Your task to perform on an android device: toggle pop-ups in chrome Image 0: 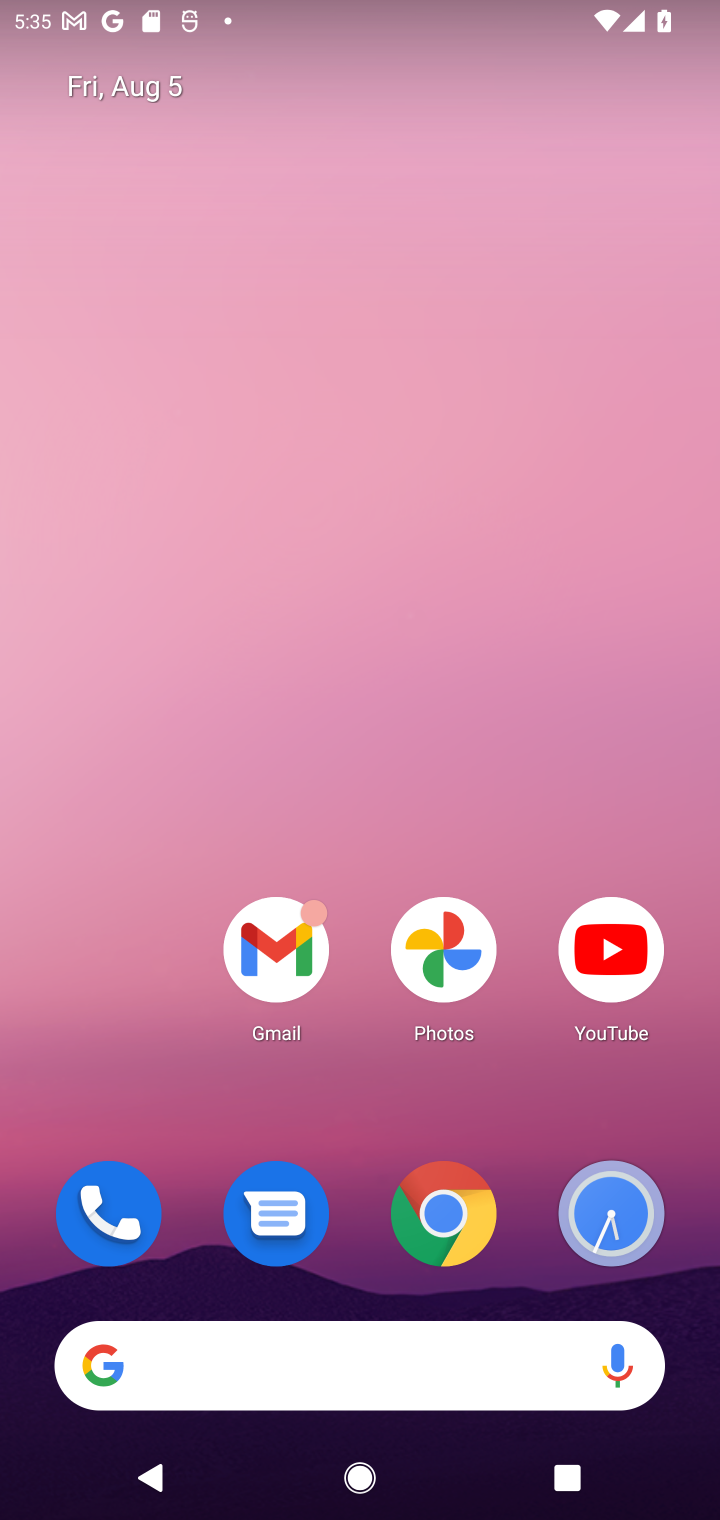
Step 0: click (482, 1222)
Your task to perform on an android device: toggle pop-ups in chrome Image 1: 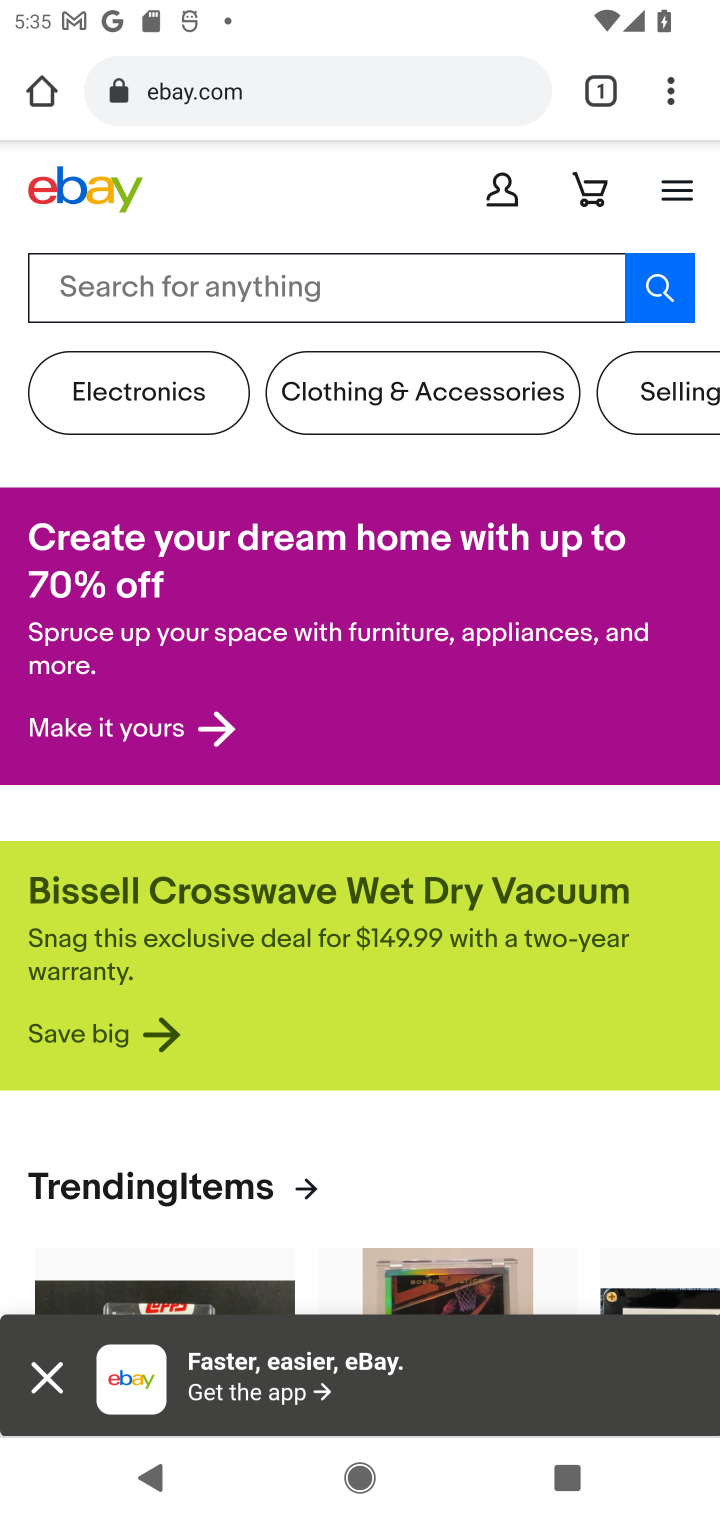
Step 1: click (667, 98)
Your task to perform on an android device: toggle pop-ups in chrome Image 2: 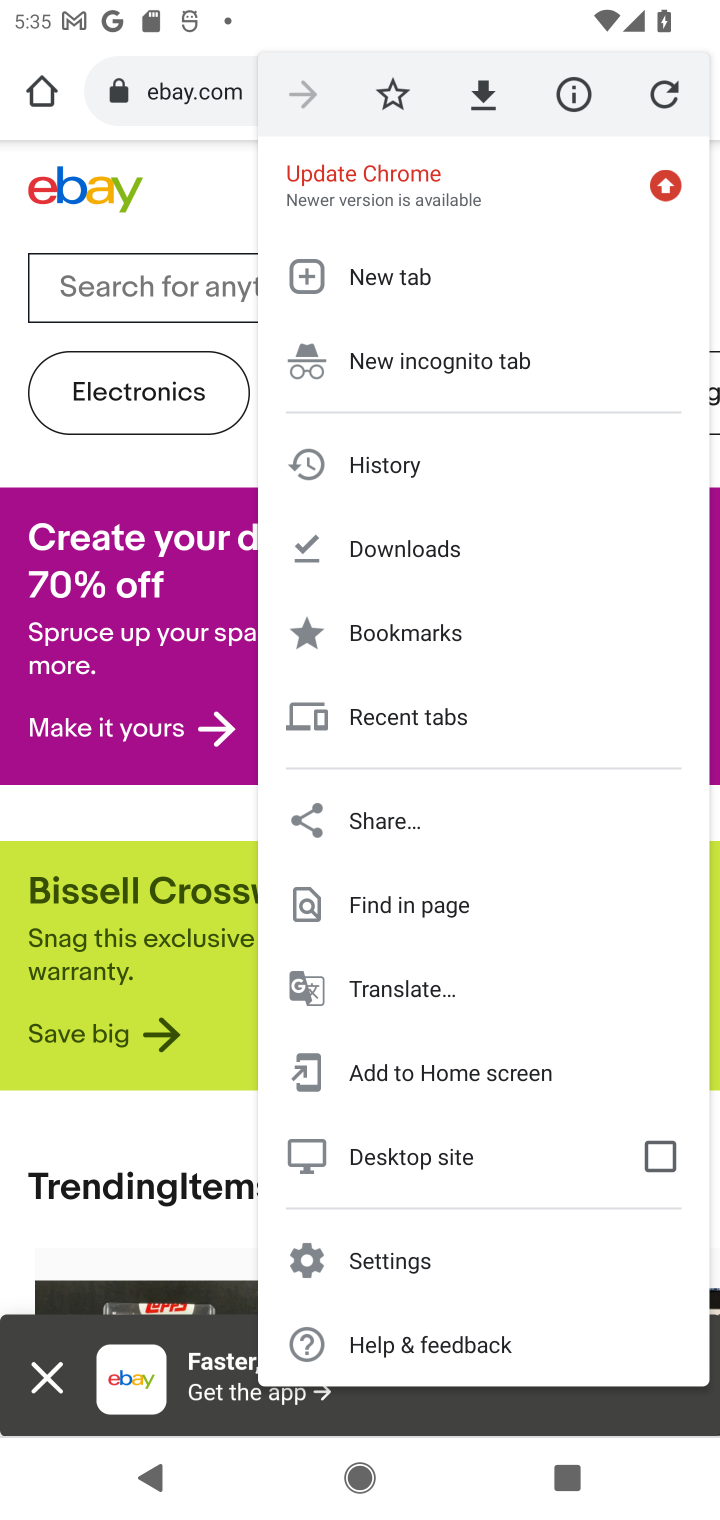
Step 2: click (361, 1243)
Your task to perform on an android device: toggle pop-ups in chrome Image 3: 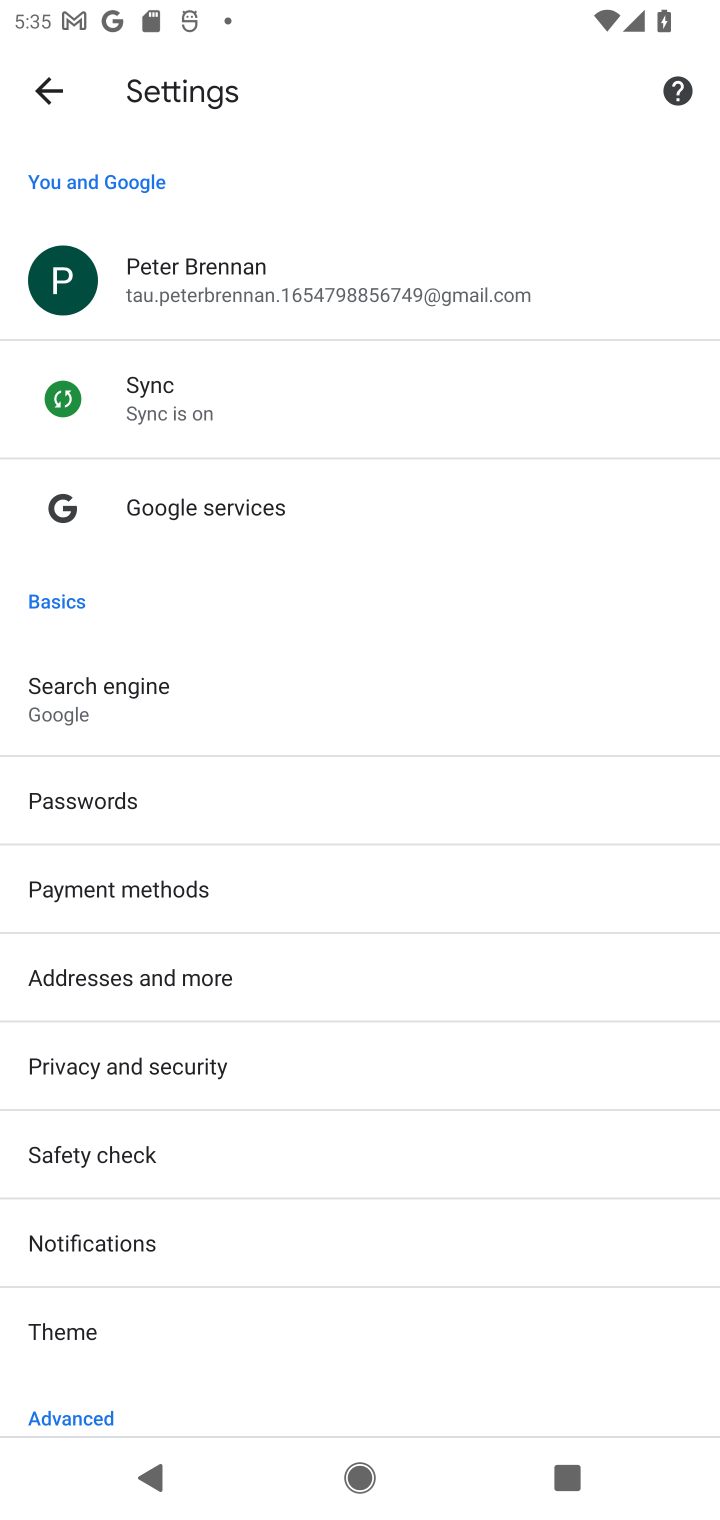
Step 3: task complete